Your task to perform on an android device: open app "ZOOM Cloud Meetings" (install if not already installed) and enter user name: "bauxite@icloud.com" and password: "dim" Image 0: 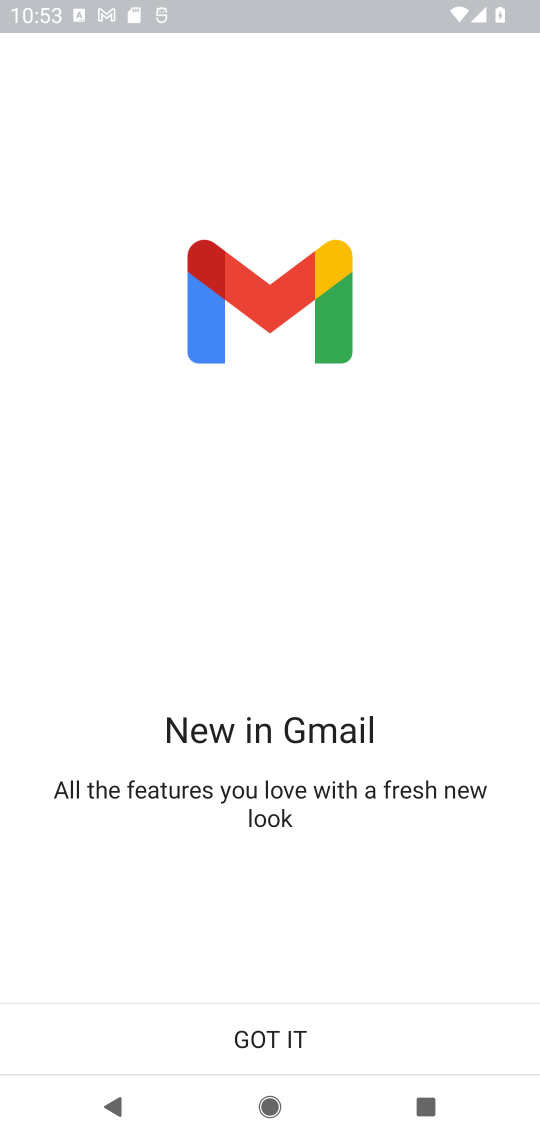
Step 0: press home button
Your task to perform on an android device: open app "ZOOM Cloud Meetings" (install if not already installed) and enter user name: "bauxite@icloud.com" and password: "dim" Image 1: 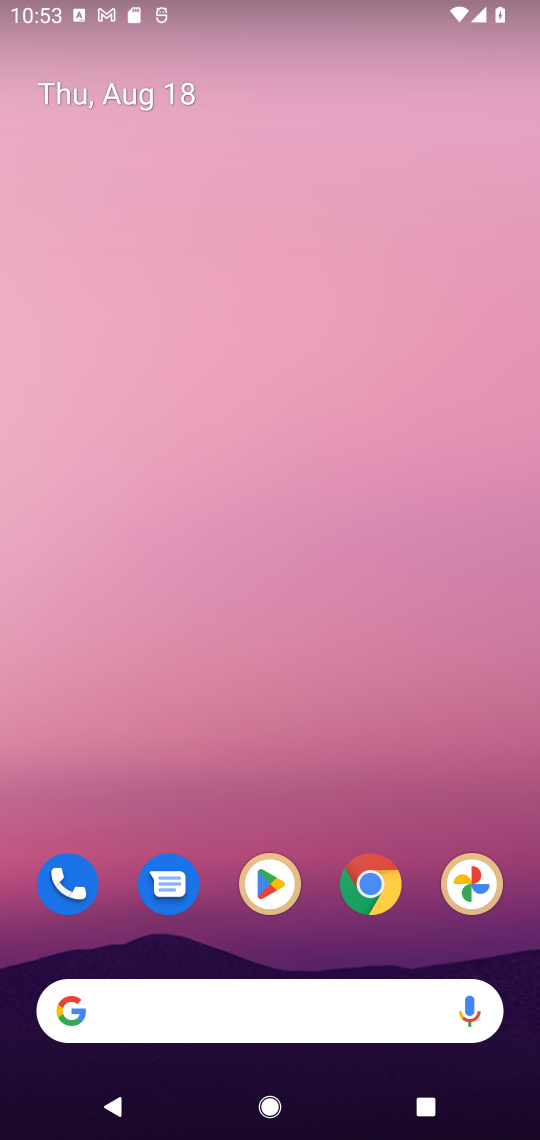
Step 1: drag from (234, 986) to (298, 274)
Your task to perform on an android device: open app "ZOOM Cloud Meetings" (install if not already installed) and enter user name: "bauxite@icloud.com" and password: "dim" Image 2: 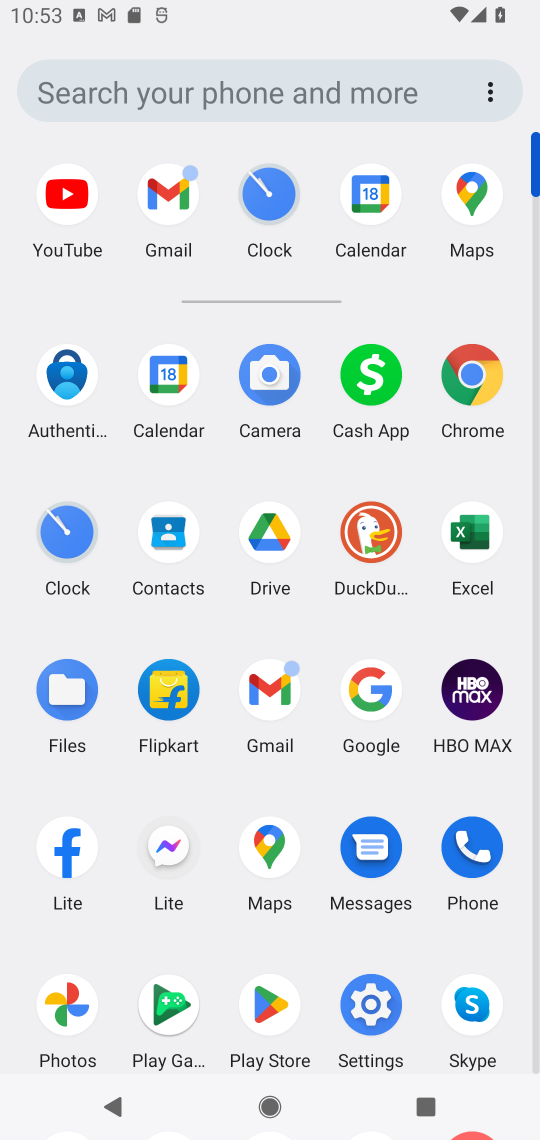
Step 2: click (272, 1000)
Your task to perform on an android device: open app "ZOOM Cloud Meetings" (install if not already installed) and enter user name: "bauxite@icloud.com" and password: "dim" Image 3: 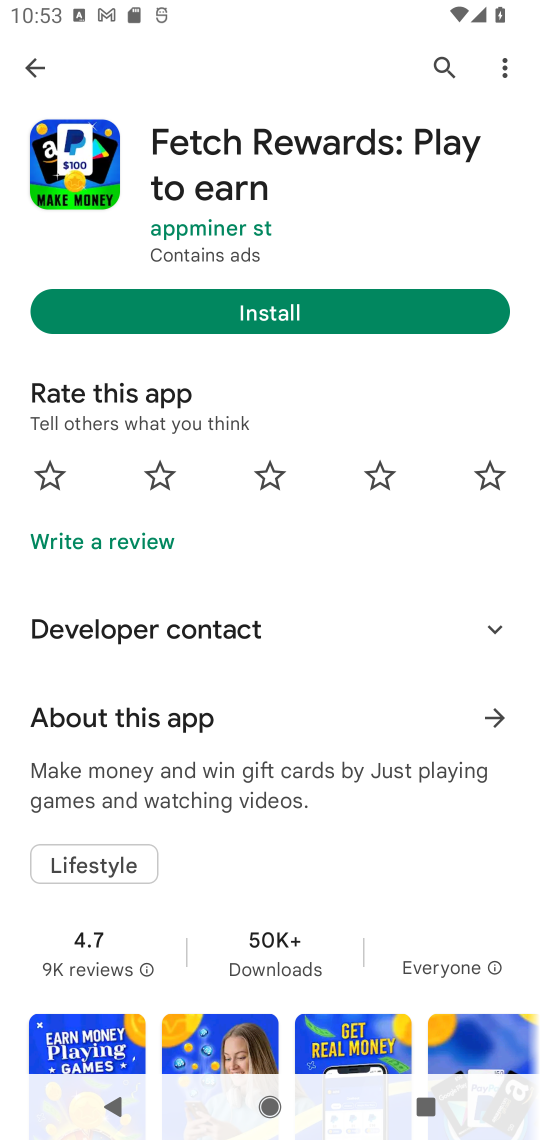
Step 3: press back button
Your task to perform on an android device: open app "ZOOM Cloud Meetings" (install if not already installed) and enter user name: "bauxite@icloud.com" and password: "dim" Image 4: 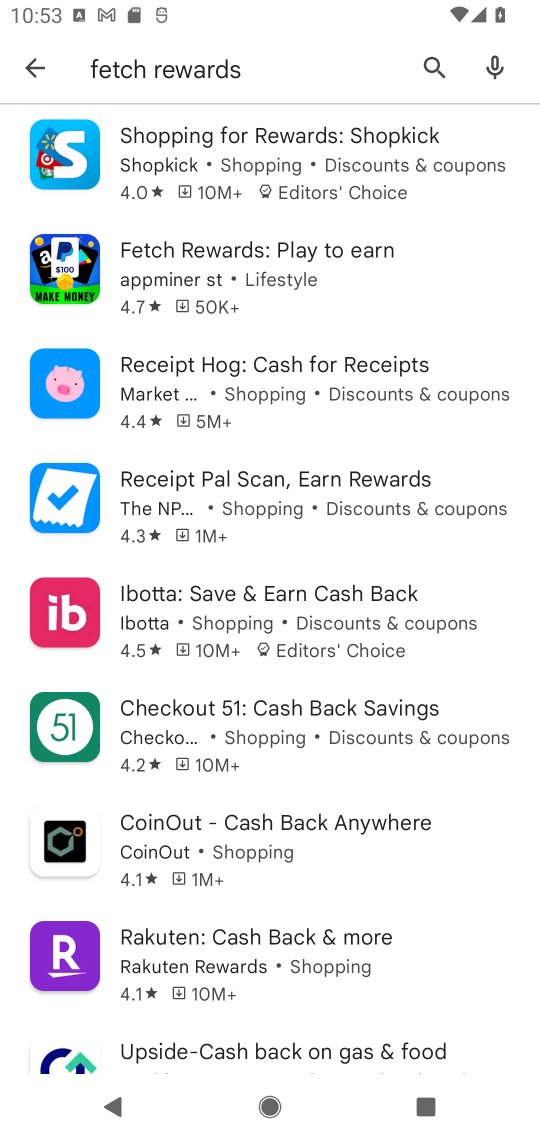
Step 4: press back button
Your task to perform on an android device: open app "ZOOM Cloud Meetings" (install if not already installed) and enter user name: "bauxite@icloud.com" and password: "dim" Image 5: 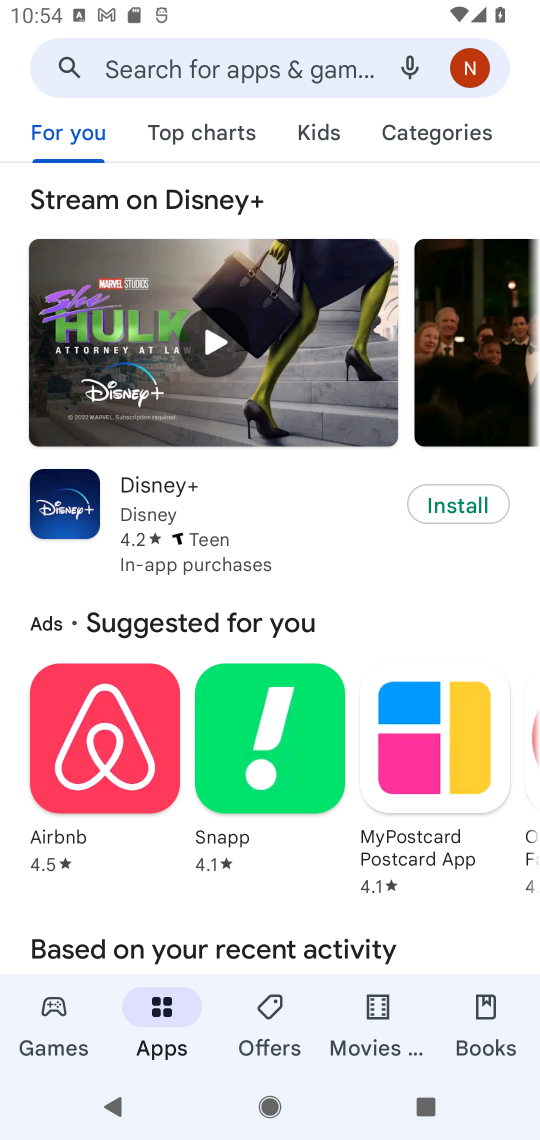
Step 5: click (320, 69)
Your task to perform on an android device: open app "ZOOM Cloud Meetings" (install if not already installed) and enter user name: "bauxite@icloud.com" and password: "dim" Image 6: 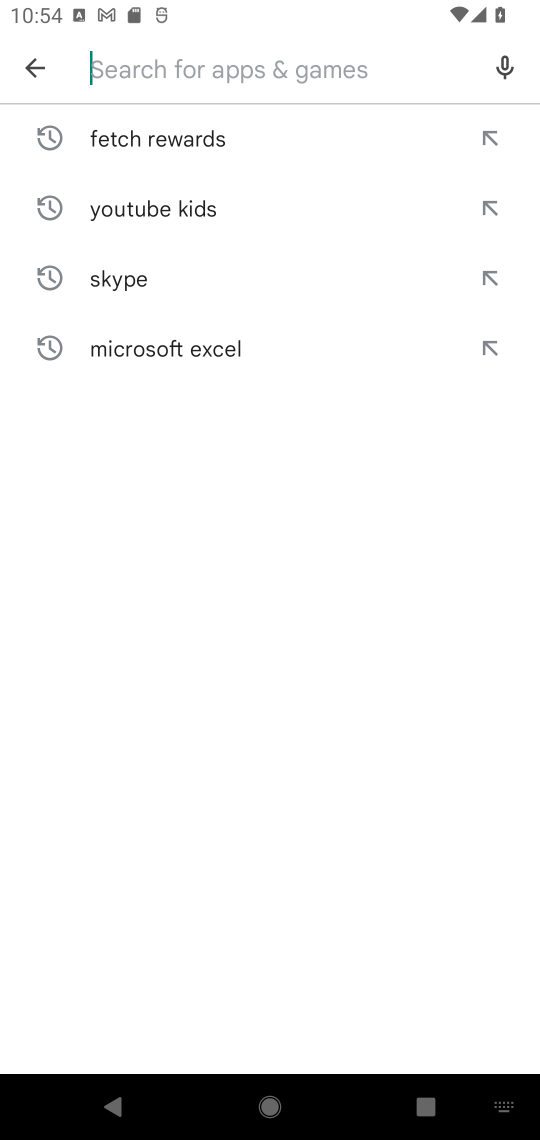
Step 6: type "ZOOM Cloud Meetings"
Your task to perform on an android device: open app "ZOOM Cloud Meetings" (install if not already installed) and enter user name: "bauxite@icloud.com" and password: "dim" Image 7: 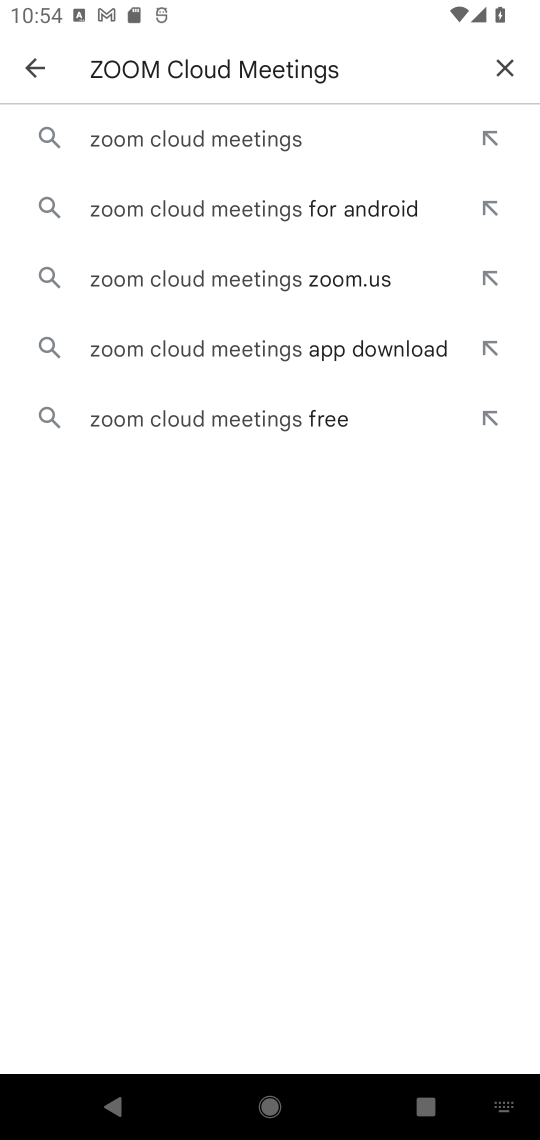
Step 7: click (223, 143)
Your task to perform on an android device: open app "ZOOM Cloud Meetings" (install if not already installed) and enter user name: "bauxite@icloud.com" and password: "dim" Image 8: 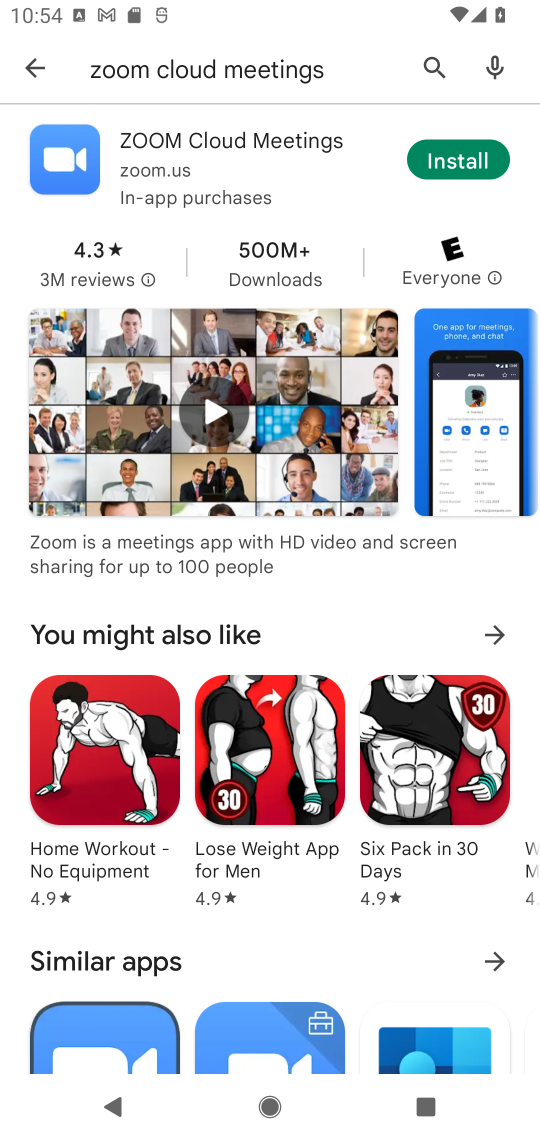
Step 8: click (259, 139)
Your task to perform on an android device: open app "ZOOM Cloud Meetings" (install if not already installed) and enter user name: "bauxite@icloud.com" and password: "dim" Image 9: 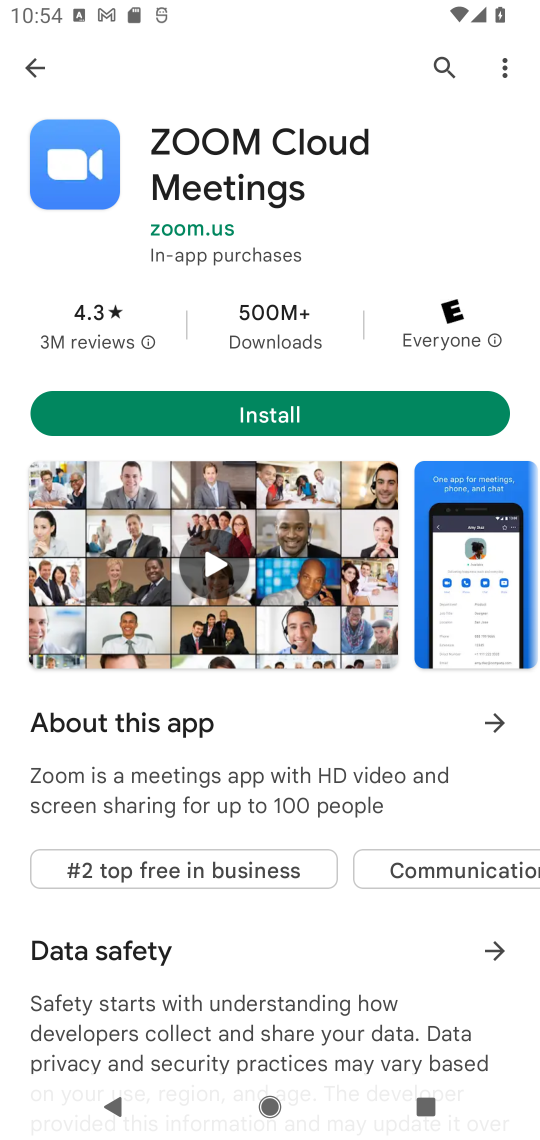
Step 9: click (300, 407)
Your task to perform on an android device: open app "ZOOM Cloud Meetings" (install if not already installed) and enter user name: "bauxite@icloud.com" and password: "dim" Image 10: 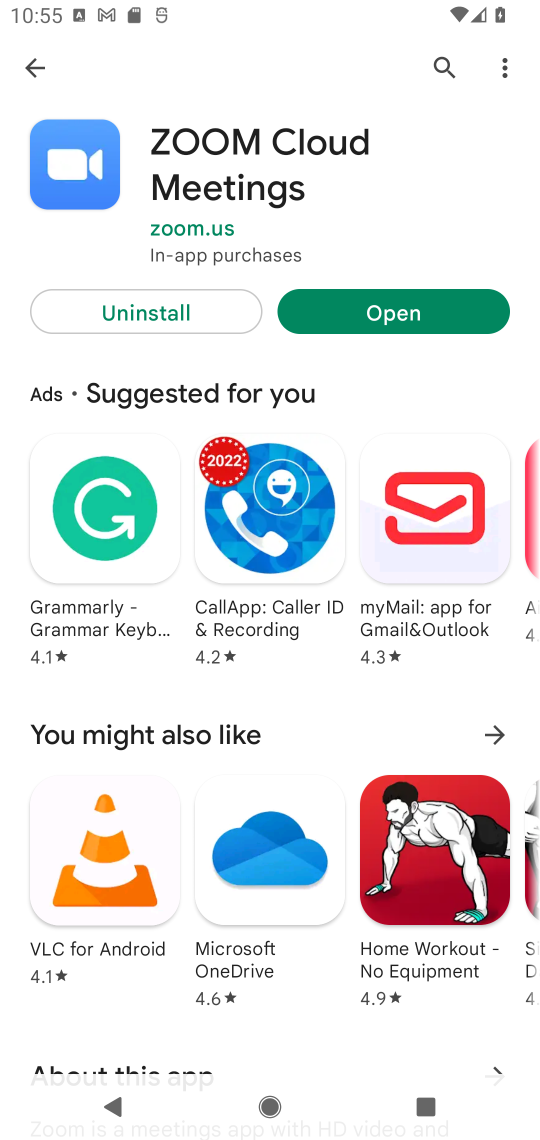
Step 10: click (401, 320)
Your task to perform on an android device: open app "ZOOM Cloud Meetings" (install if not already installed) and enter user name: "bauxite@icloud.com" and password: "dim" Image 11: 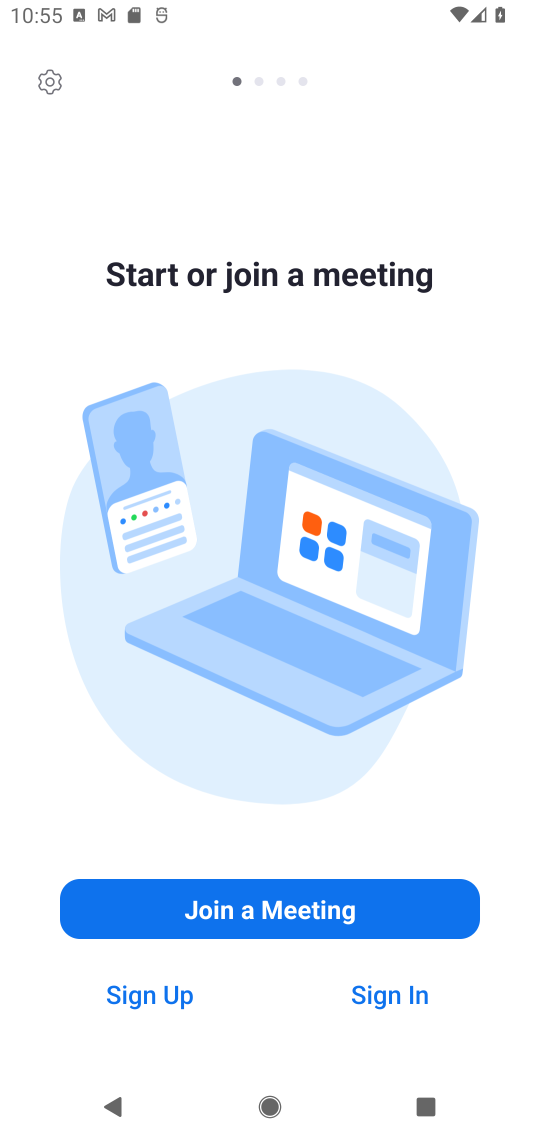
Step 11: click (412, 1000)
Your task to perform on an android device: open app "ZOOM Cloud Meetings" (install if not already installed) and enter user name: "bauxite@icloud.com" and password: "dim" Image 12: 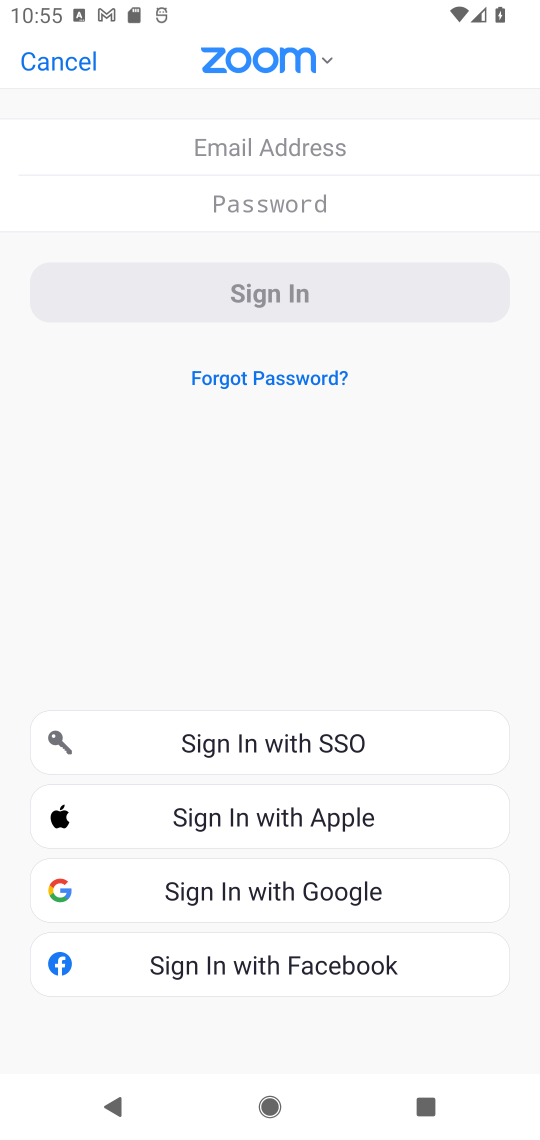
Step 12: click (273, 151)
Your task to perform on an android device: open app "ZOOM Cloud Meetings" (install if not already installed) and enter user name: "bauxite@icloud.com" and password: "dim" Image 13: 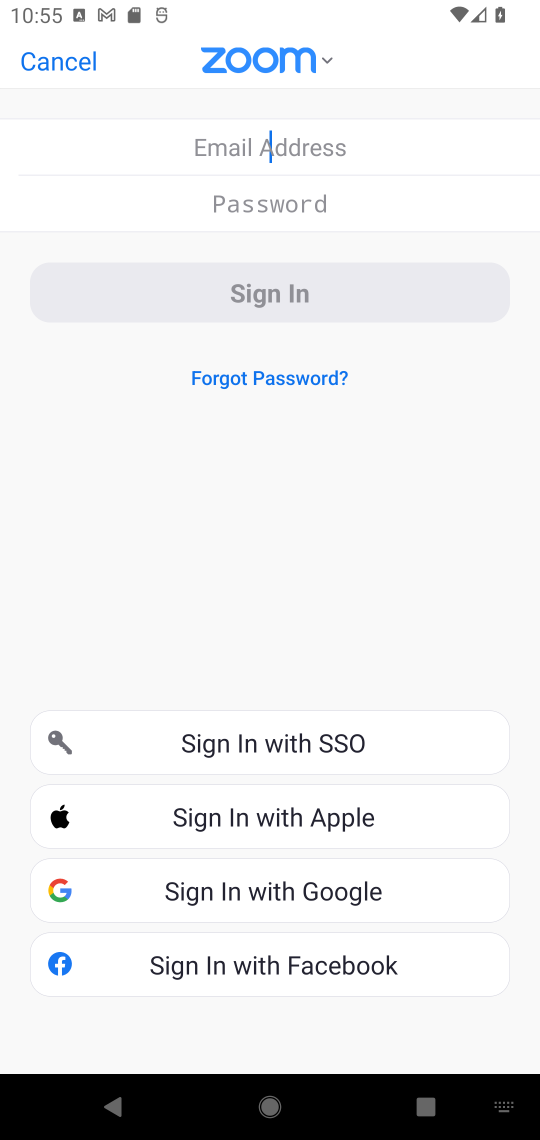
Step 13: type "bauxite@icloud.com"
Your task to perform on an android device: open app "ZOOM Cloud Meetings" (install if not already installed) and enter user name: "bauxite@icloud.com" and password: "dim" Image 14: 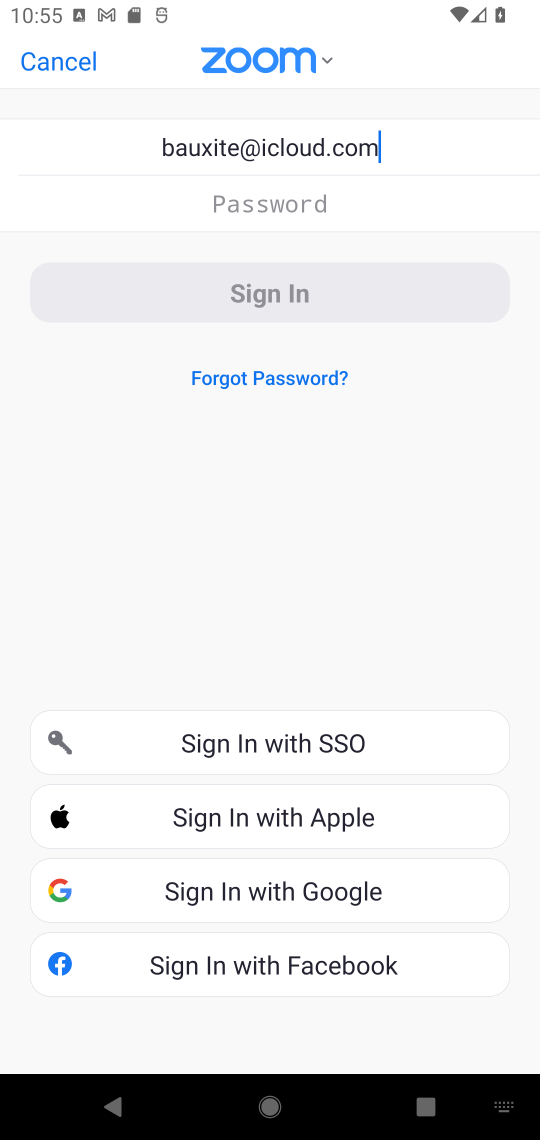
Step 14: click (297, 191)
Your task to perform on an android device: open app "ZOOM Cloud Meetings" (install if not already installed) and enter user name: "bauxite@icloud.com" and password: "dim" Image 15: 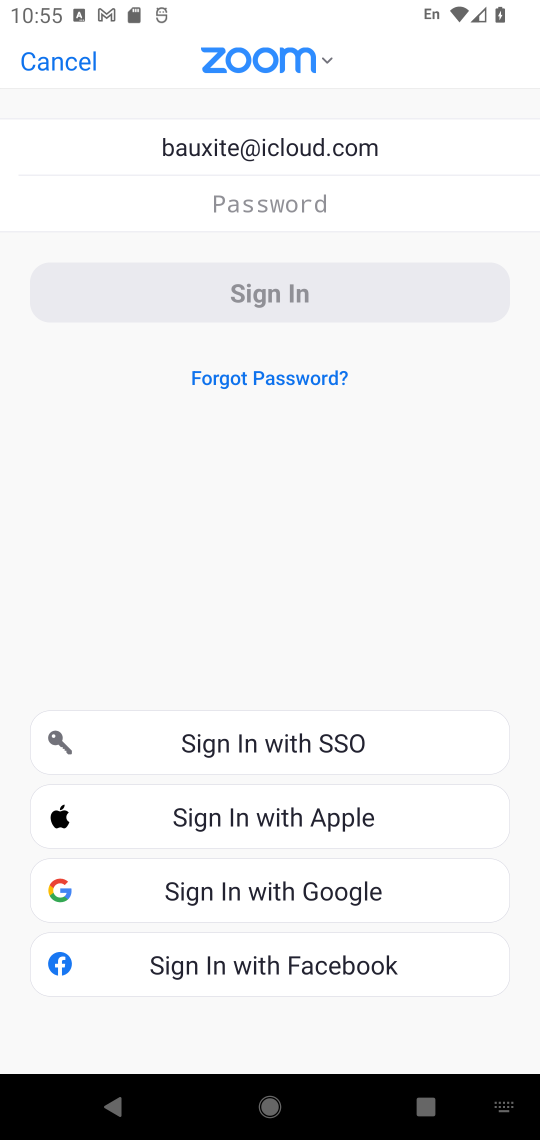
Step 15: type "dim"
Your task to perform on an android device: open app "ZOOM Cloud Meetings" (install if not already installed) and enter user name: "bauxite@icloud.com" and password: "dim" Image 16: 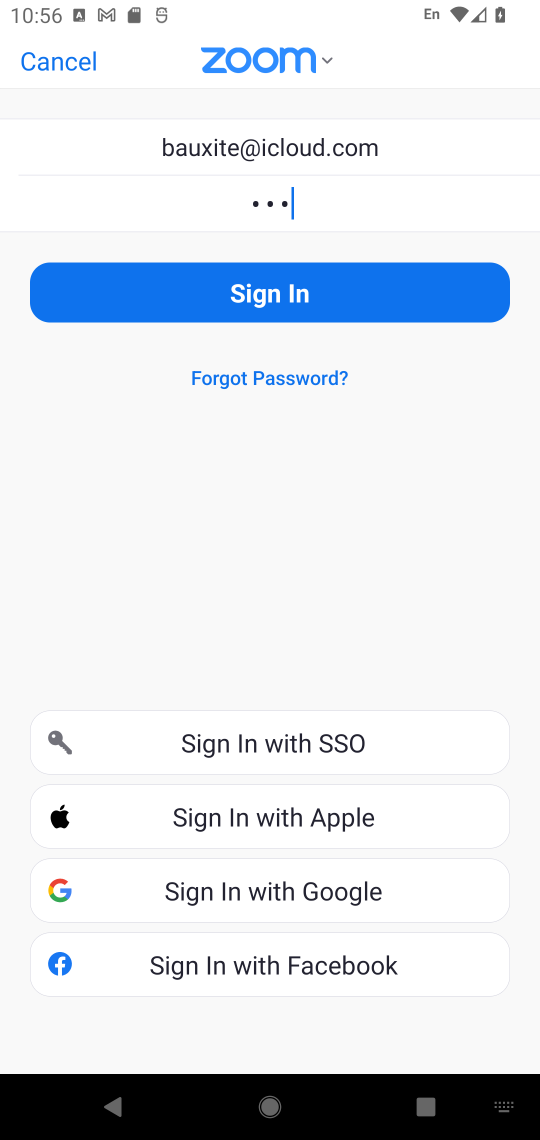
Step 16: task complete